Your task to perform on an android device: Go to wifi settings Image 0: 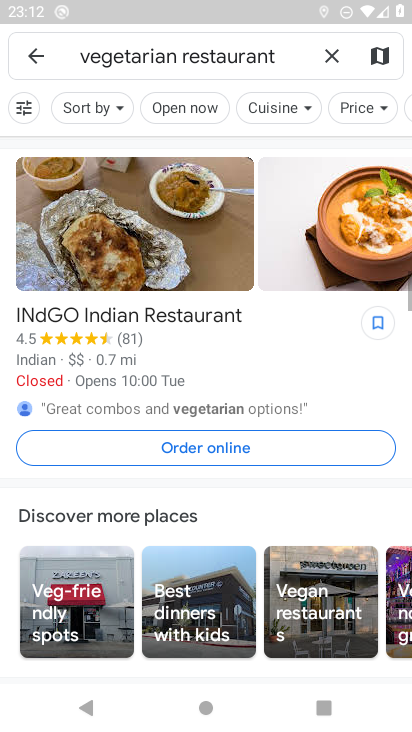
Step 0: drag from (214, 612) to (248, 32)
Your task to perform on an android device: Go to wifi settings Image 1: 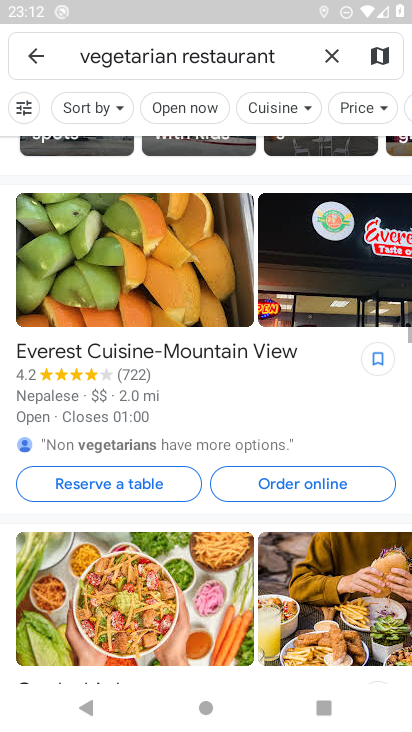
Step 1: press home button
Your task to perform on an android device: Go to wifi settings Image 2: 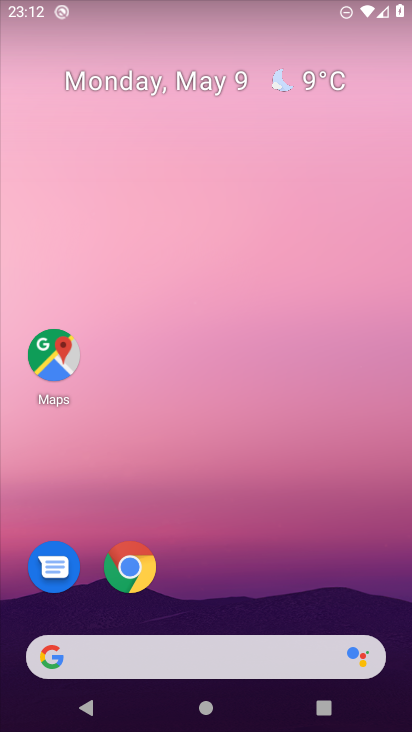
Step 2: drag from (213, 621) to (256, 25)
Your task to perform on an android device: Go to wifi settings Image 3: 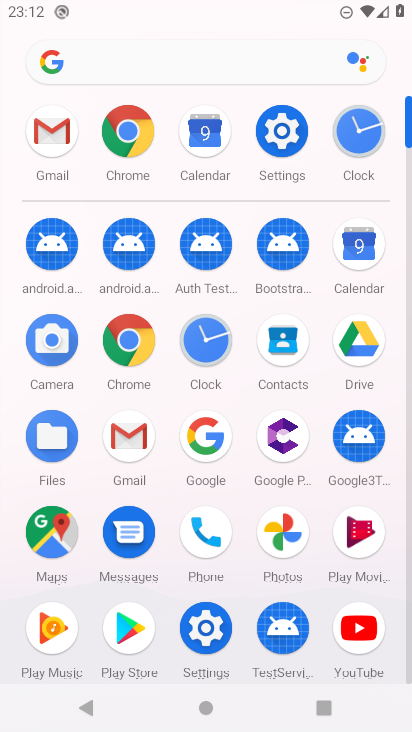
Step 3: click (278, 128)
Your task to perform on an android device: Go to wifi settings Image 4: 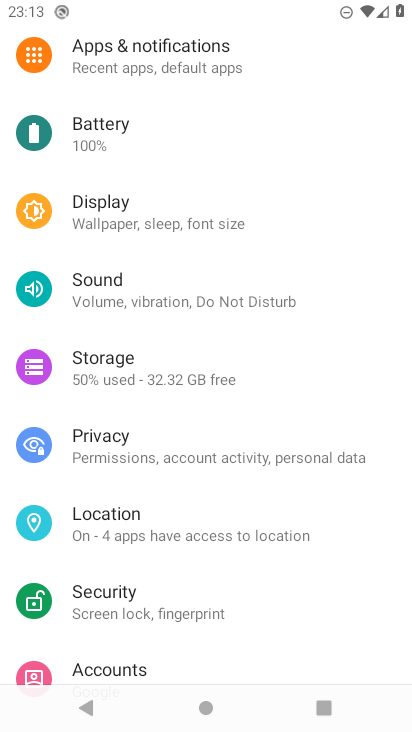
Step 4: drag from (195, 106) to (223, 598)
Your task to perform on an android device: Go to wifi settings Image 5: 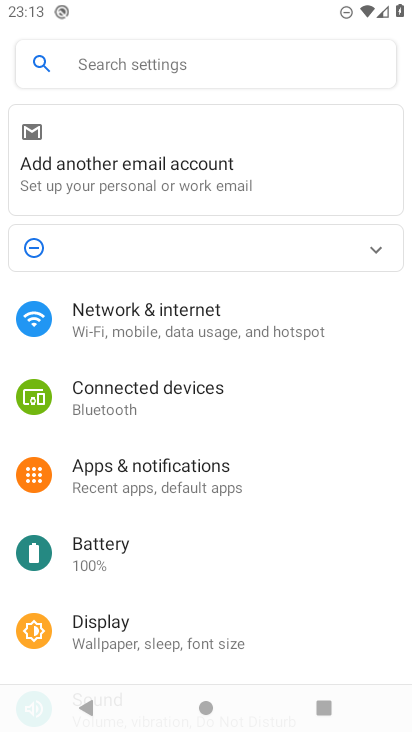
Step 5: click (204, 324)
Your task to perform on an android device: Go to wifi settings Image 6: 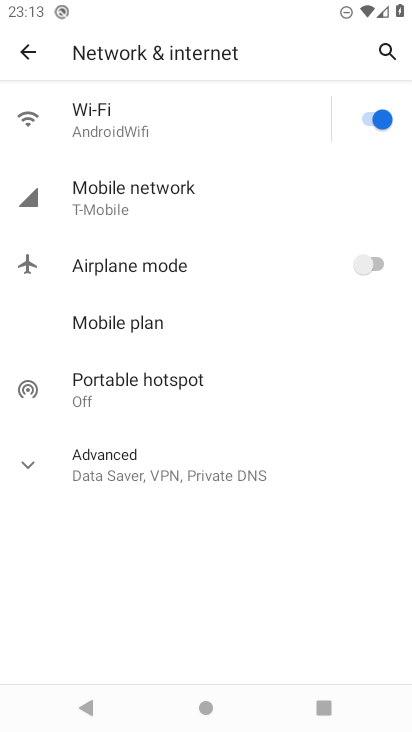
Step 6: click (197, 108)
Your task to perform on an android device: Go to wifi settings Image 7: 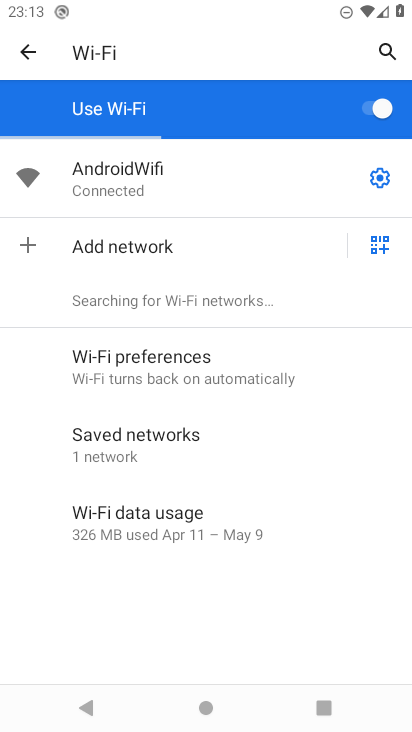
Step 7: task complete